Your task to perform on an android device: Go to Google Image 0: 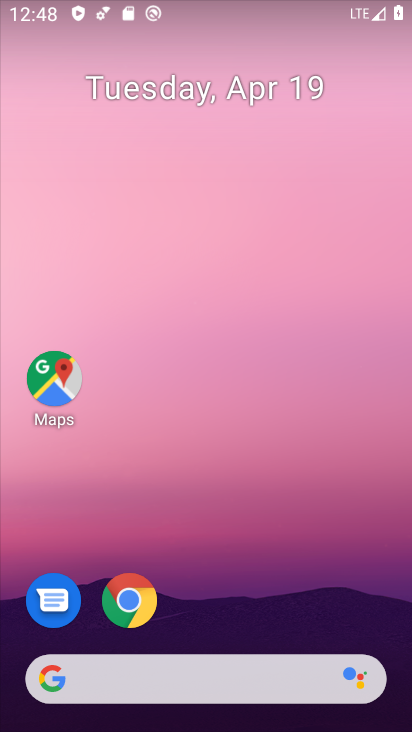
Step 0: drag from (251, 650) to (212, 62)
Your task to perform on an android device: Go to Google Image 1: 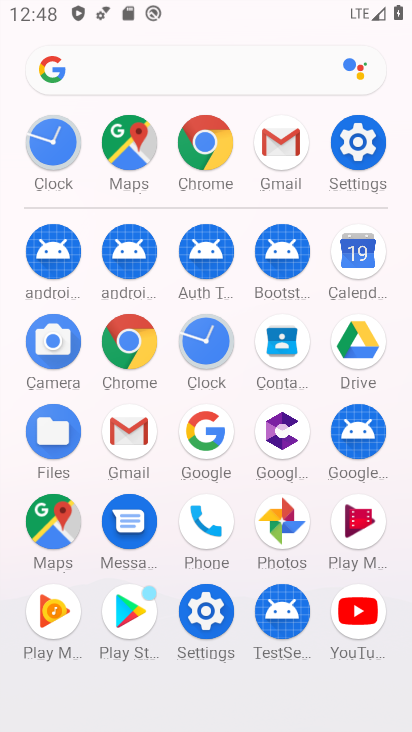
Step 1: click (198, 440)
Your task to perform on an android device: Go to Google Image 2: 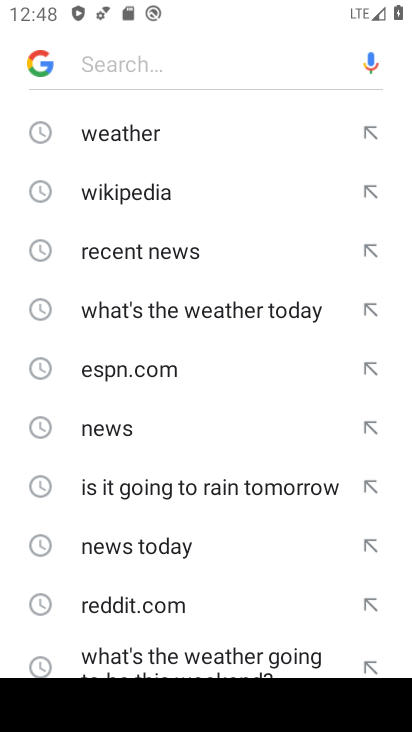
Step 2: task complete